Your task to perform on an android device: turn on wifi Image 0: 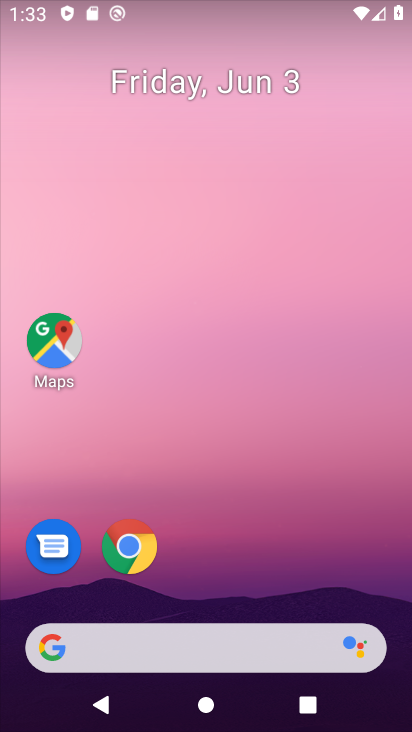
Step 0: drag from (226, 412) to (266, 213)
Your task to perform on an android device: turn on wifi Image 1: 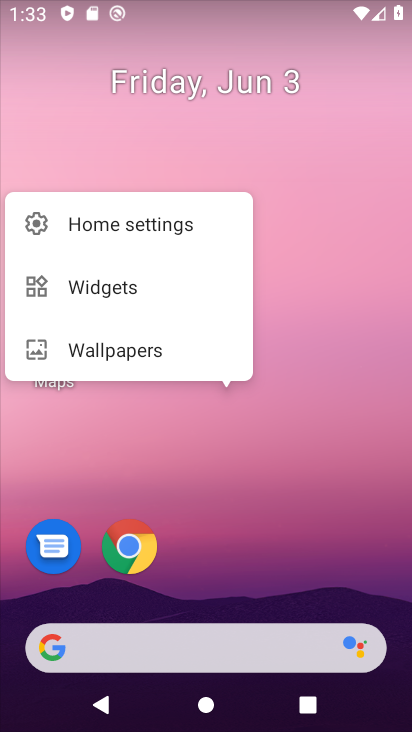
Step 1: drag from (200, 621) to (356, 97)
Your task to perform on an android device: turn on wifi Image 2: 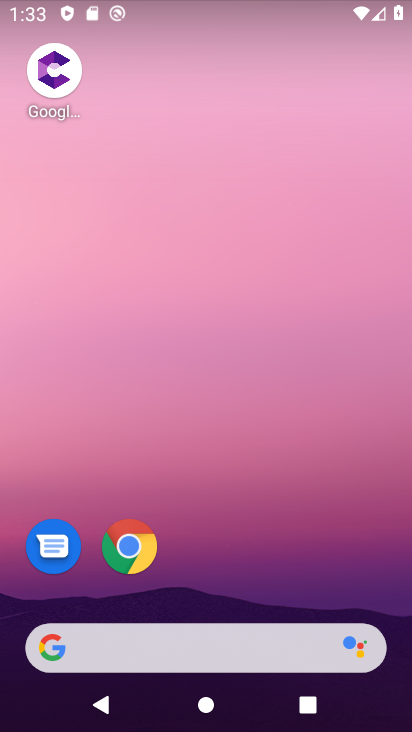
Step 2: click (293, 117)
Your task to perform on an android device: turn on wifi Image 3: 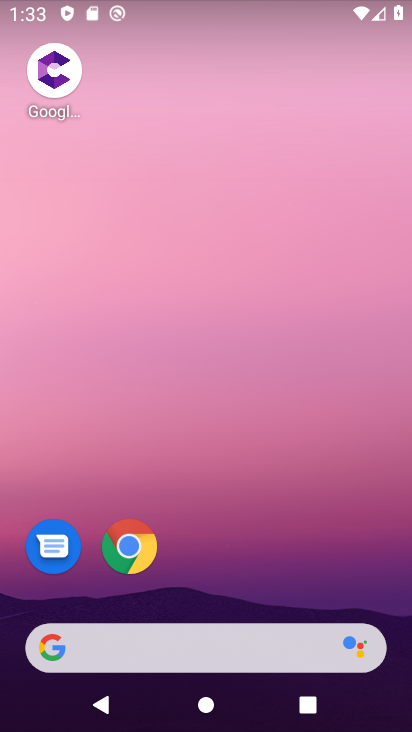
Step 3: drag from (145, 623) to (265, 164)
Your task to perform on an android device: turn on wifi Image 4: 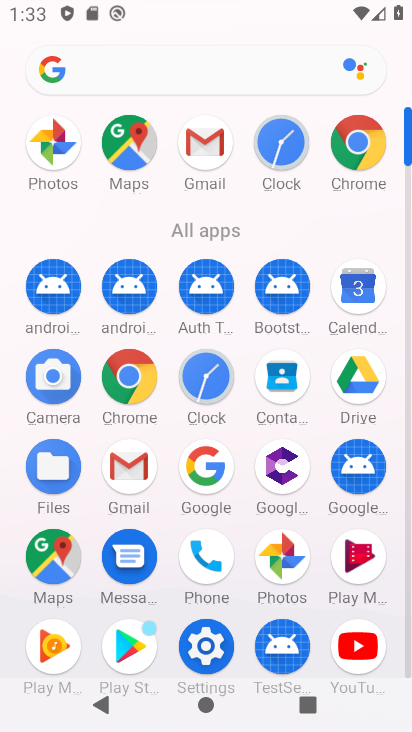
Step 4: click (203, 646)
Your task to perform on an android device: turn on wifi Image 5: 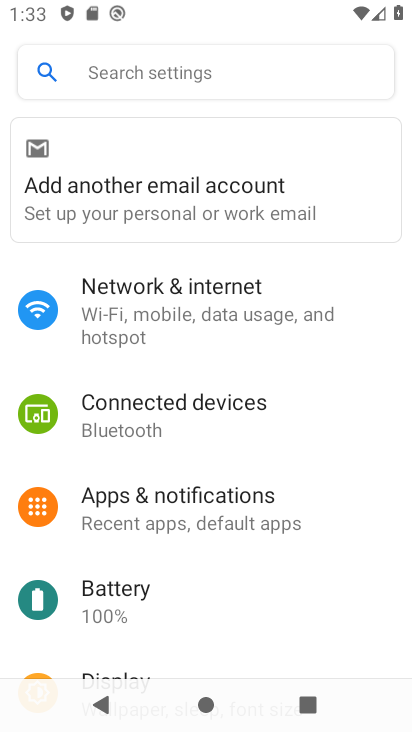
Step 5: click (228, 339)
Your task to perform on an android device: turn on wifi Image 6: 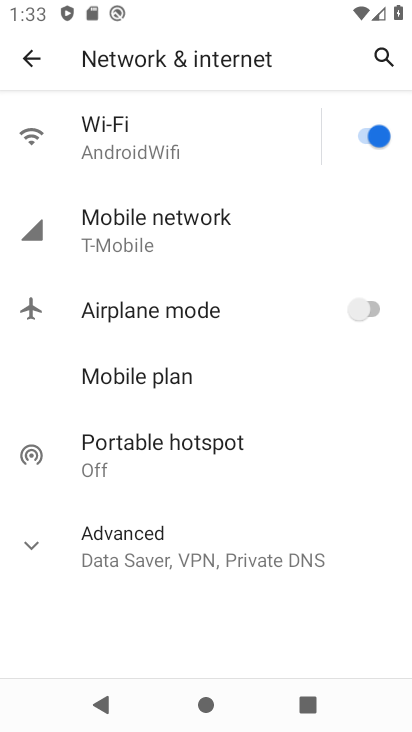
Step 6: task complete